Your task to perform on an android device: stop showing notifications on the lock screen Image 0: 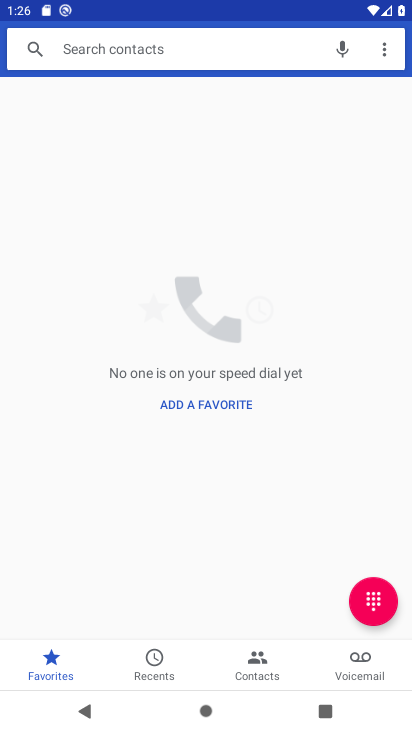
Step 0: press home button
Your task to perform on an android device: stop showing notifications on the lock screen Image 1: 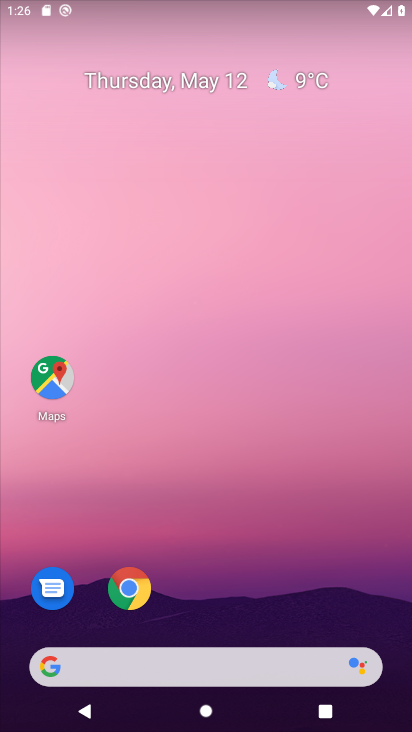
Step 1: drag from (297, 500) to (229, 0)
Your task to perform on an android device: stop showing notifications on the lock screen Image 2: 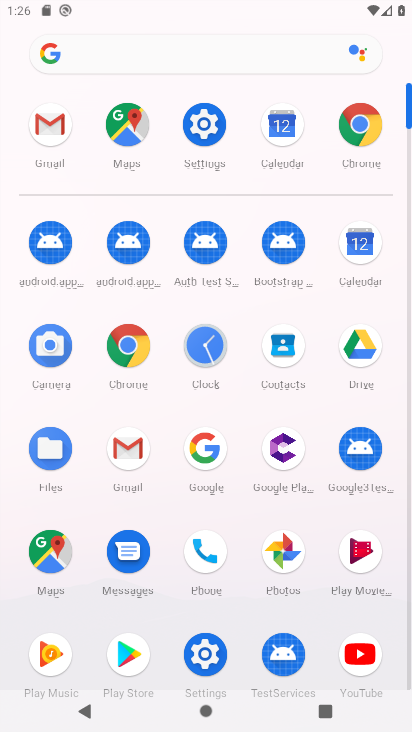
Step 2: click (195, 138)
Your task to perform on an android device: stop showing notifications on the lock screen Image 3: 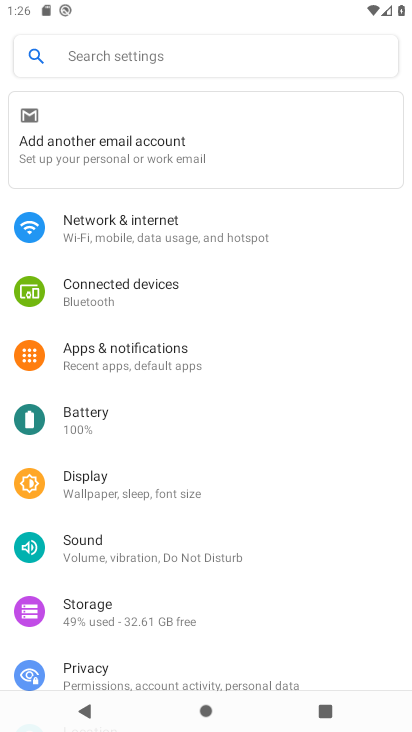
Step 3: click (135, 365)
Your task to perform on an android device: stop showing notifications on the lock screen Image 4: 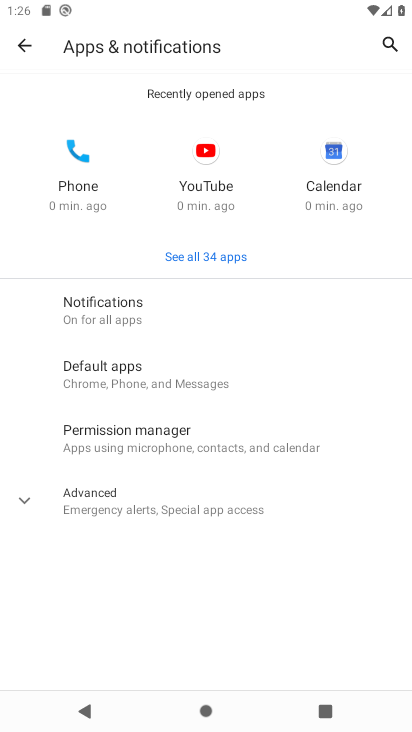
Step 4: click (106, 319)
Your task to perform on an android device: stop showing notifications on the lock screen Image 5: 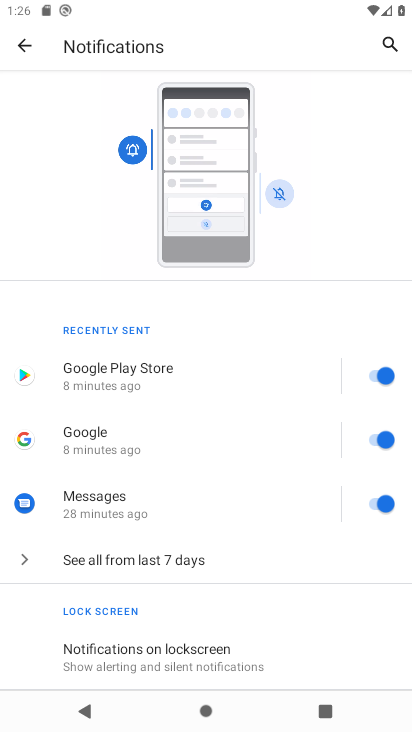
Step 5: drag from (140, 515) to (214, 129)
Your task to perform on an android device: stop showing notifications on the lock screen Image 6: 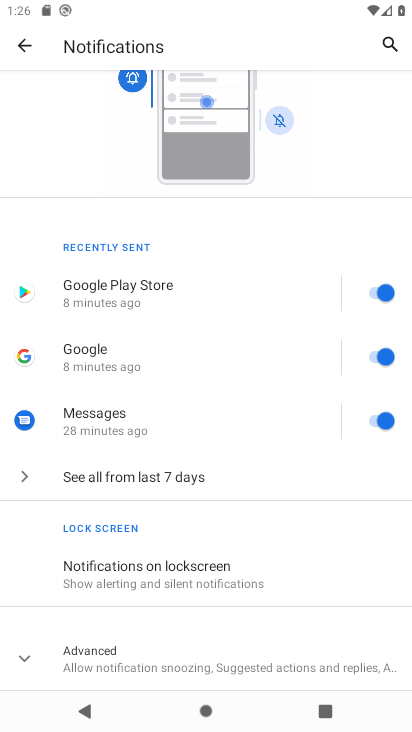
Step 6: click (173, 579)
Your task to perform on an android device: stop showing notifications on the lock screen Image 7: 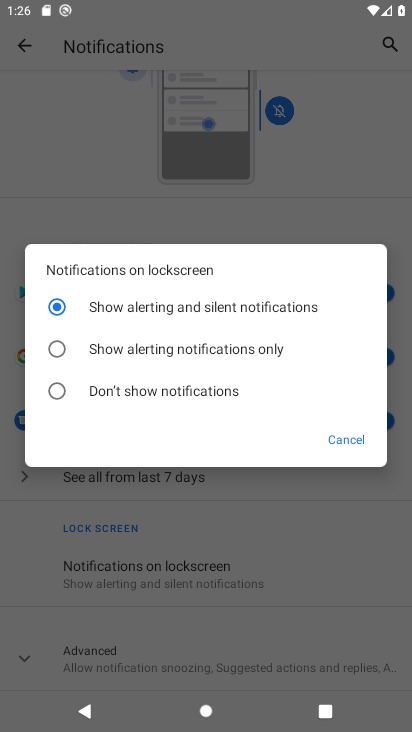
Step 7: click (123, 391)
Your task to perform on an android device: stop showing notifications on the lock screen Image 8: 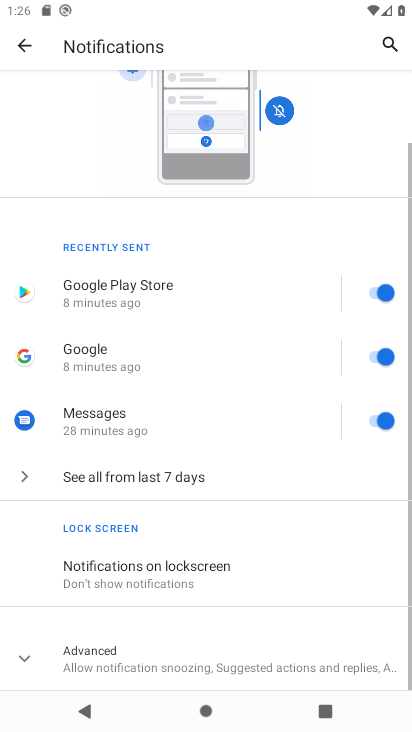
Step 8: task complete